Your task to perform on an android device: turn pop-ups on in chrome Image 0: 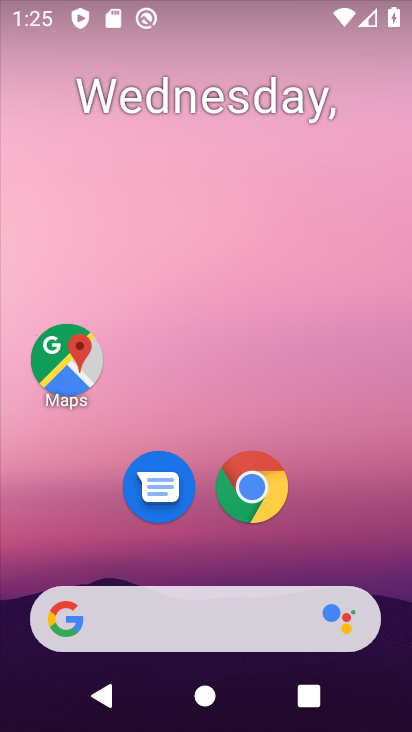
Step 0: click (250, 495)
Your task to perform on an android device: turn pop-ups on in chrome Image 1: 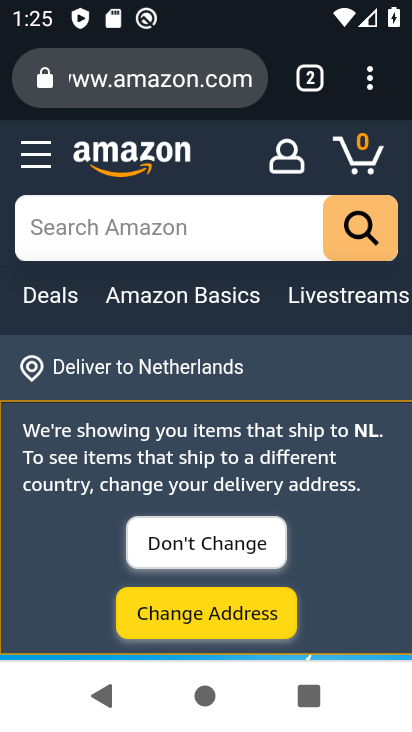
Step 1: click (370, 72)
Your task to perform on an android device: turn pop-ups on in chrome Image 2: 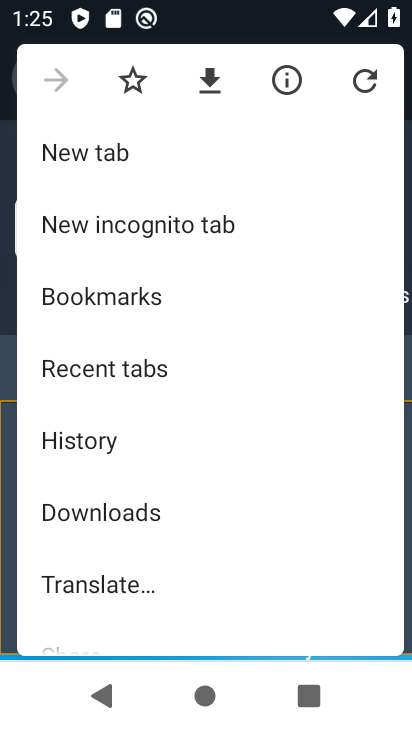
Step 2: drag from (187, 552) to (159, 219)
Your task to perform on an android device: turn pop-ups on in chrome Image 3: 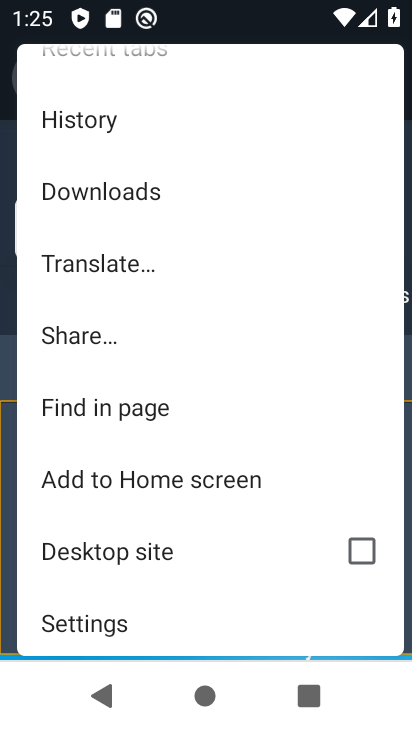
Step 3: drag from (176, 558) to (192, 231)
Your task to perform on an android device: turn pop-ups on in chrome Image 4: 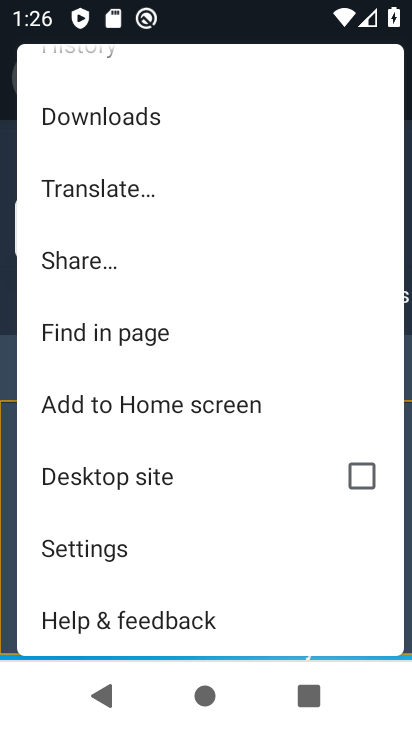
Step 4: click (82, 545)
Your task to perform on an android device: turn pop-ups on in chrome Image 5: 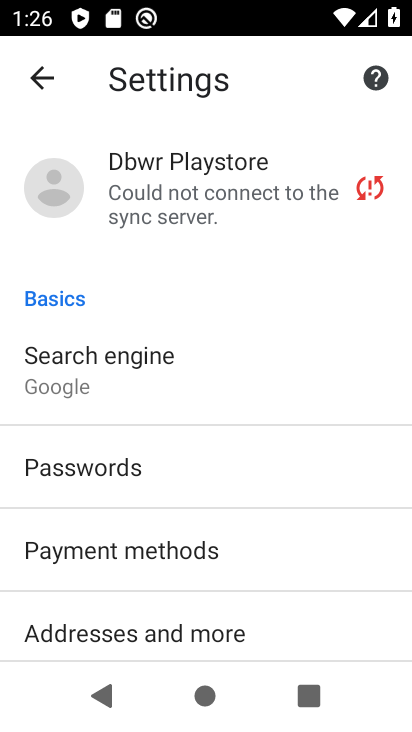
Step 5: drag from (204, 493) to (199, 220)
Your task to perform on an android device: turn pop-ups on in chrome Image 6: 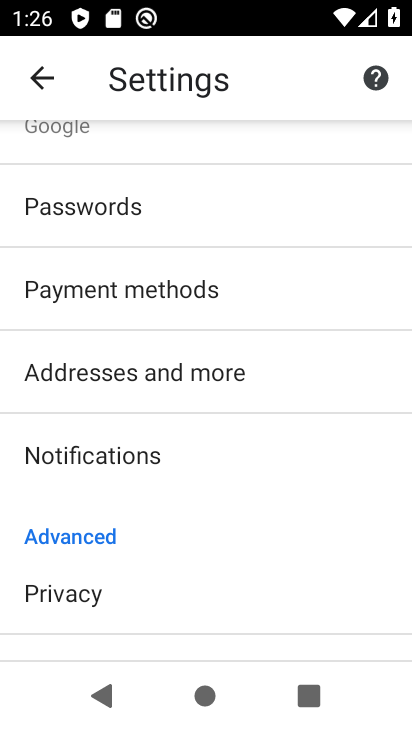
Step 6: drag from (201, 495) to (223, 187)
Your task to perform on an android device: turn pop-ups on in chrome Image 7: 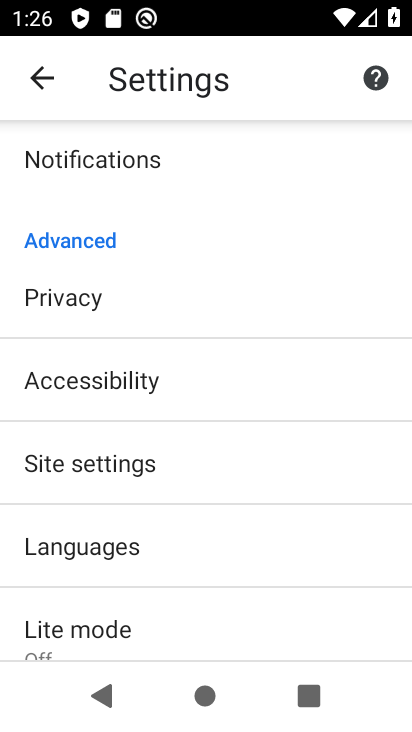
Step 7: click (122, 453)
Your task to perform on an android device: turn pop-ups on in chrome Image 8: 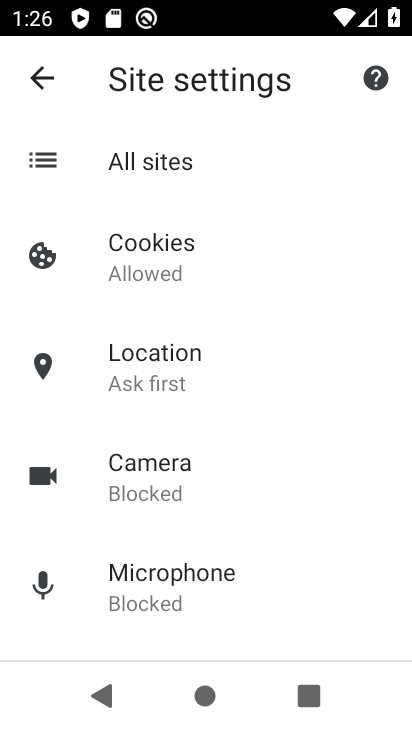
Step 8: drag from (215, 496) to (211, 201)
Your task to perform on an android device: turn pop-ups on in chrome Image 9: 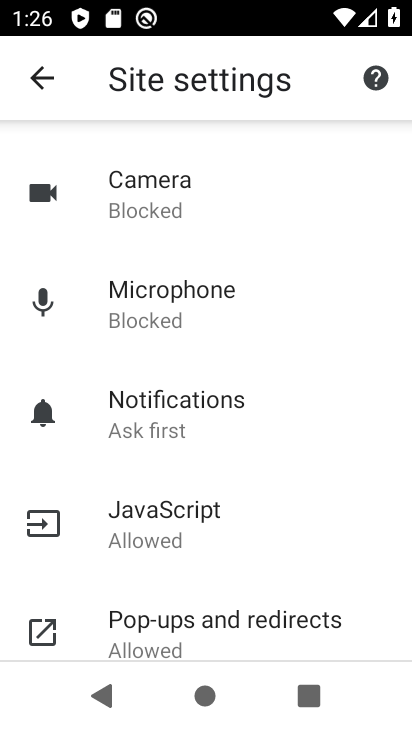
Step 9: click (170, 622)
Your task to perform on an android device: turn pop-ups on in chrome Image 10: 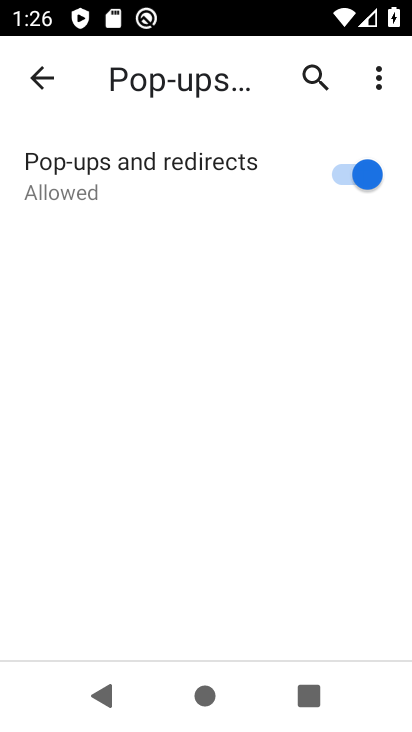
Step 10: task complete